Your task to perform on an android device: toggle translation in the chrome app Image 0: 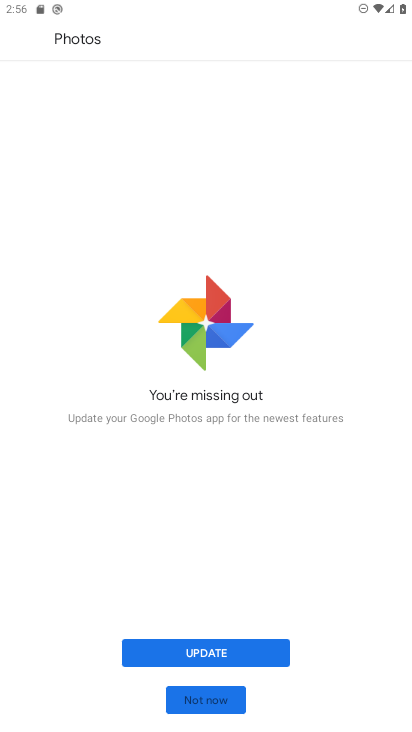
Step 0: press home button
Your task to perform on an android device: toggle translation in the chrome app Image 1: 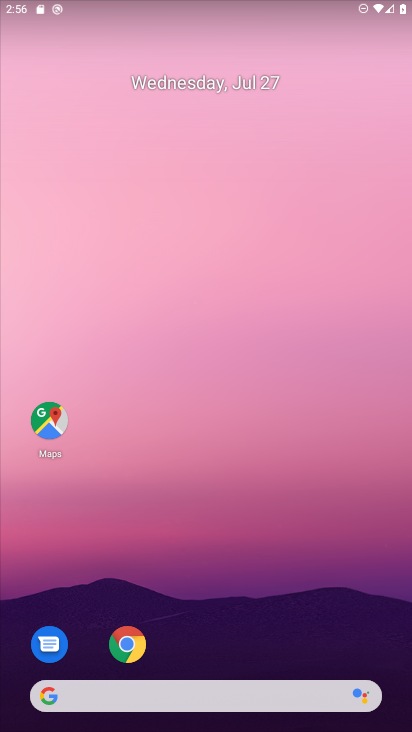
Step 1: click (136, 647)
Your task to perform on an android device: toggle translation in the chrome app Image 2: 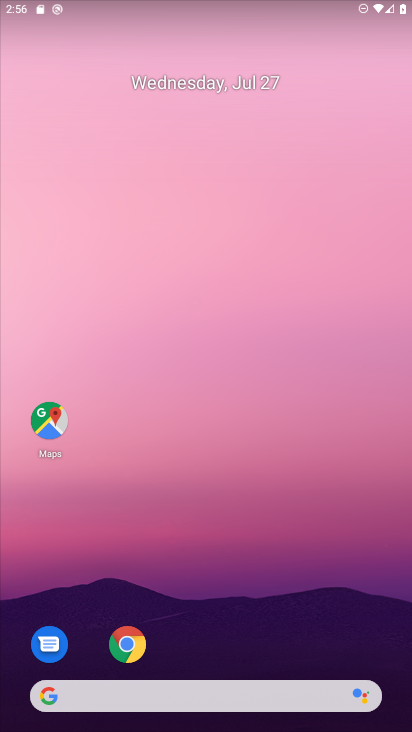
Step 2: drag from (209, 643) to (252, 149)
Your task to perform on an android device: toggle translation in the chrome app Image 3: 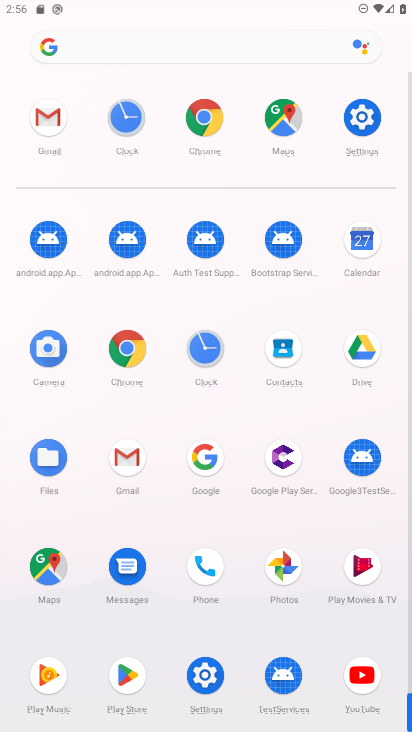
Step 3: click (139, 364)
Your task to perform on an android device: toggle translation in the chrome app Image 4: 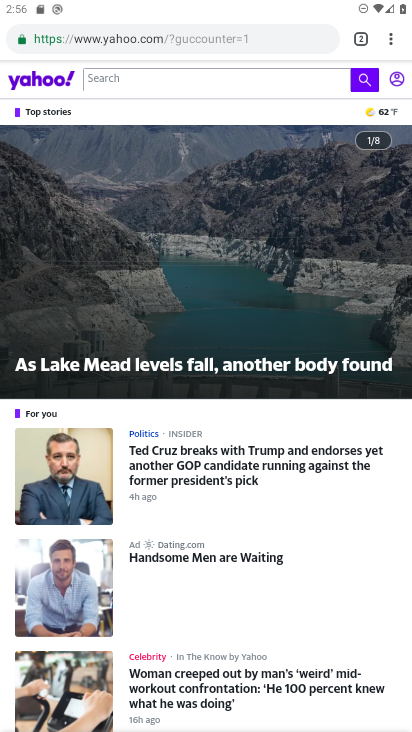
Step 4: click (394, 37)
Your task to perform on an android device: toggle translation in the chrome app Image 5: 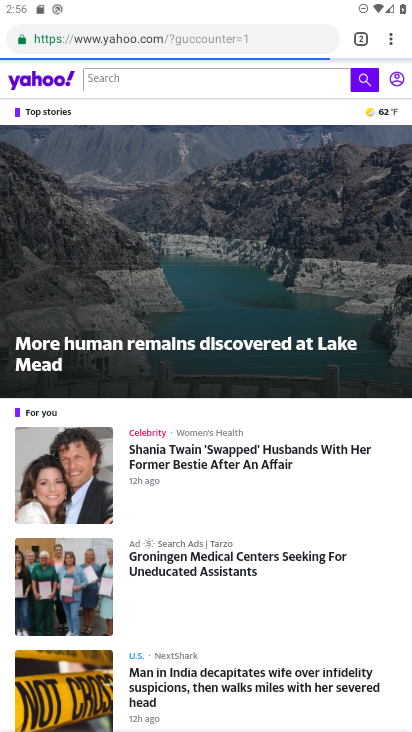
Step 5: click (391, 41)
Your task to perform on an android device: toggle translation in the chrome app Image 6: 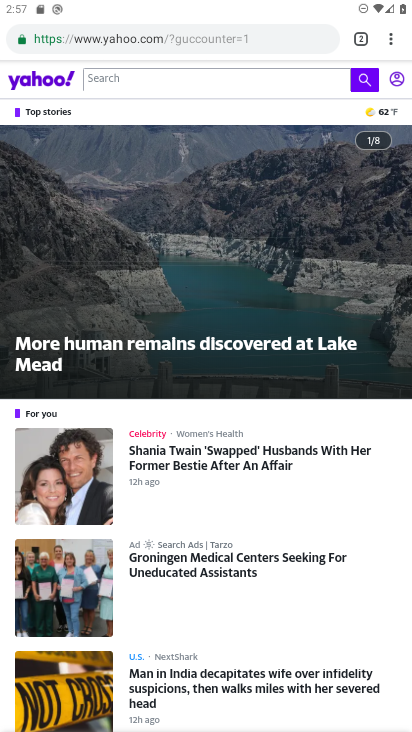
Step 6: click (388, 39)
Your task to perform on an android device: toggle translation in the chrome app Image 7: 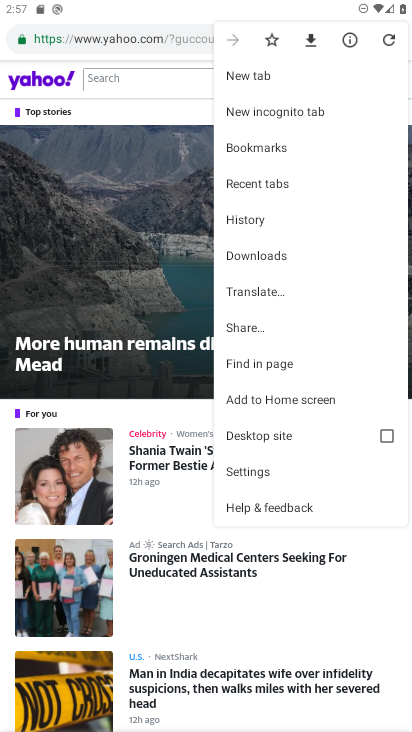
Step 7: click (242, 473)
Your task to perform on an android device: toggle translation in the chrome app Image 8: 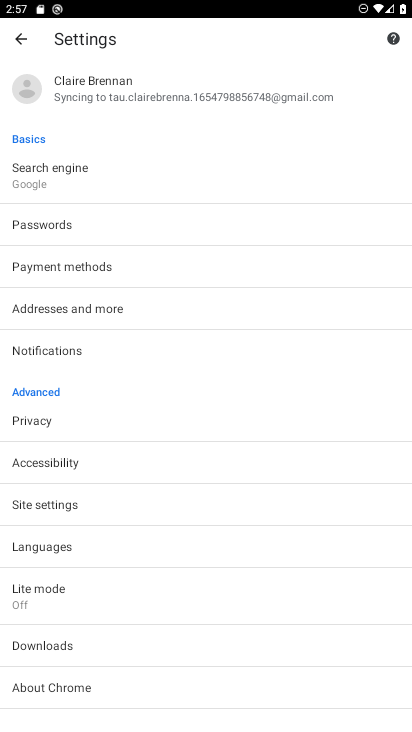
Step 8: click (65, 551)
Your task to perform on an android device: toggle translation in the chrome app Image 9: 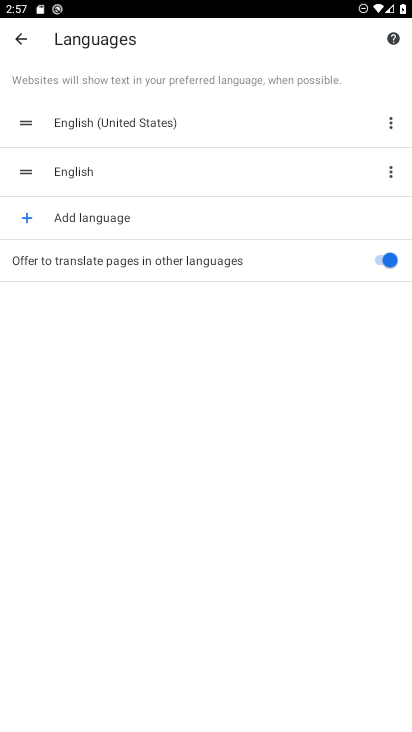
Step 9: click (353, 258)
Your task to perform on an android device: toggle translation in the chrome app Image 10: 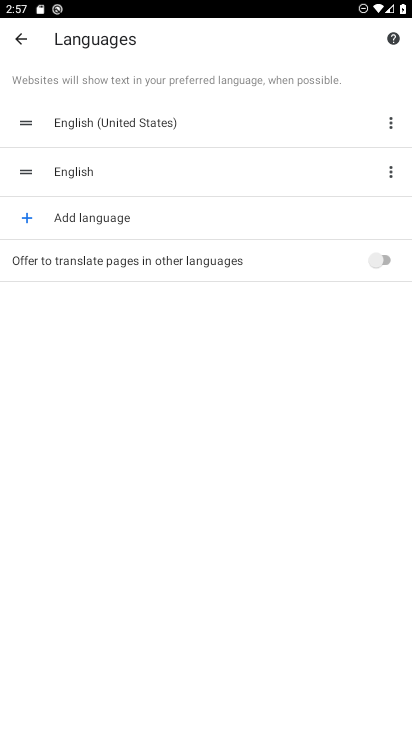
Step 10: task complete